Your task to perform on an android device: turn pop-ups off in chrome Image 0: 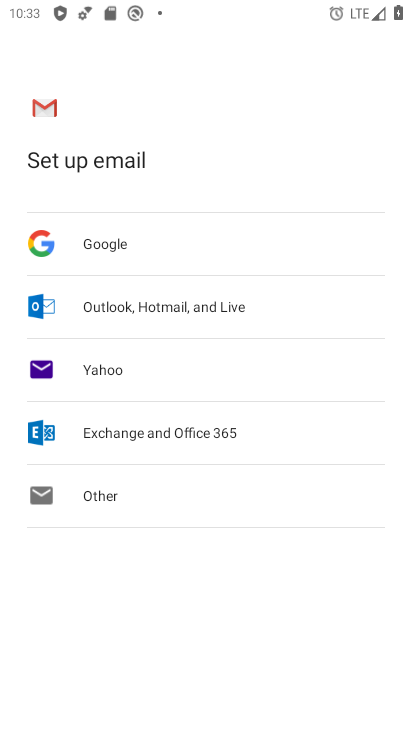
Step 0: press home button
Your task to perform on an android device: turn pop-ups off in chrome Image 1: 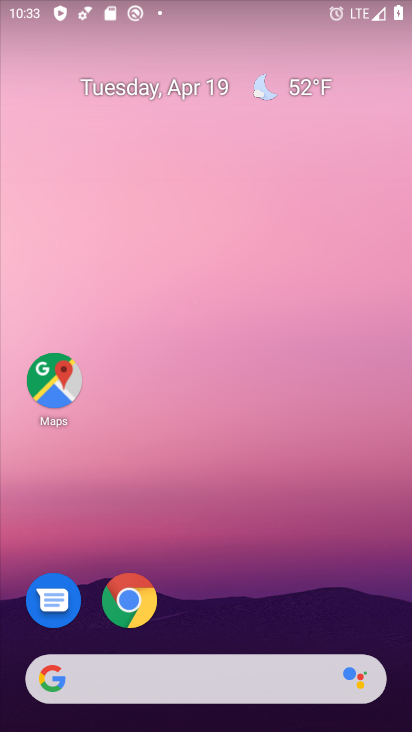
Step 1: drag from (269, 493) to (239, 217)
Your task to perform on an android device: turn pop-ups off in chrome Image 2: 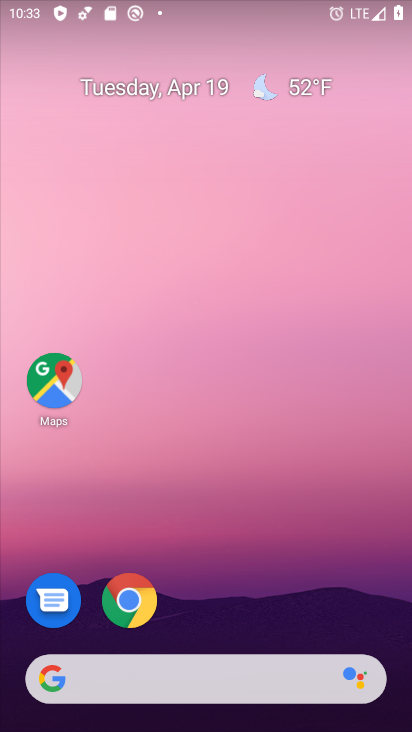
Step 2: drag from (324, 599) to (190, 226)
Your task to perform on an android device: turn pop-ups off in chrome Image 3: 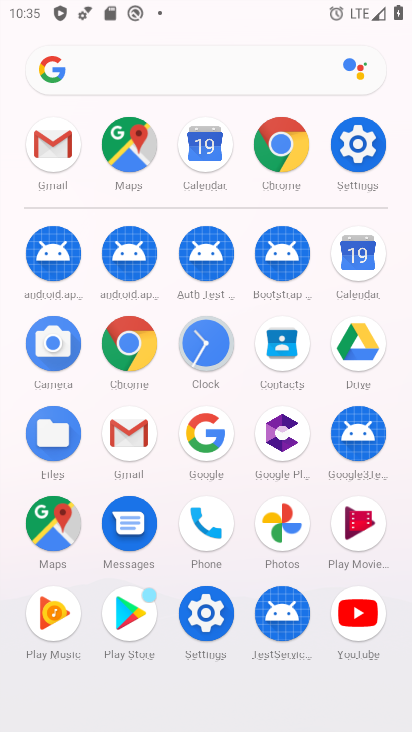
Step 3: click (271, 156)
Your task to perform on an android device: turn pop-ups off in chrome Image 4: 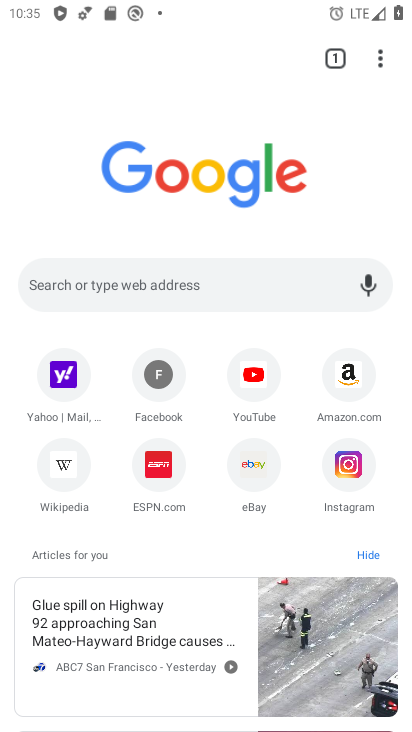
Step 4: click (376, 55)
Your task to perform on an android device: turn pop-ups off in chrome Image 5: 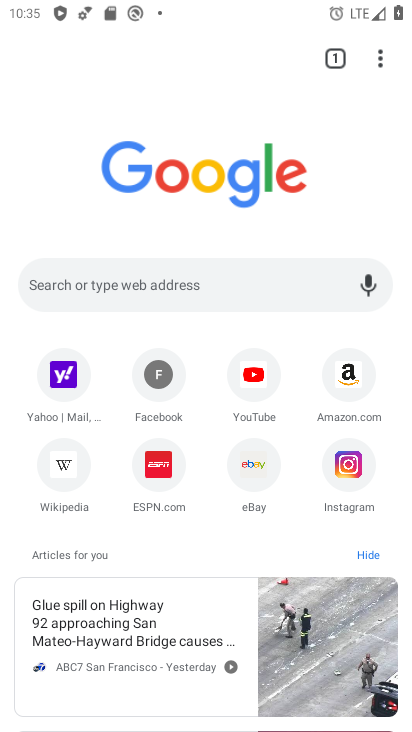
Step 5: click (378, 54)
Your task to perform on an android device: turn pop-ups off in chrome Image 6: 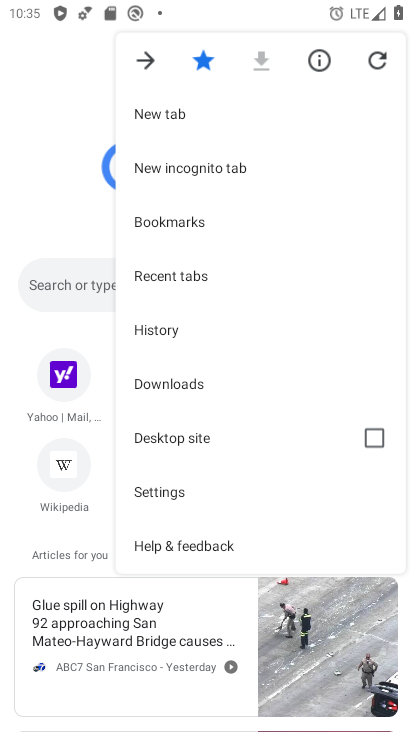
Step 6: click (211, 494)
Your task to perform on an android device: turn pop-ups off in chrome Image 7: 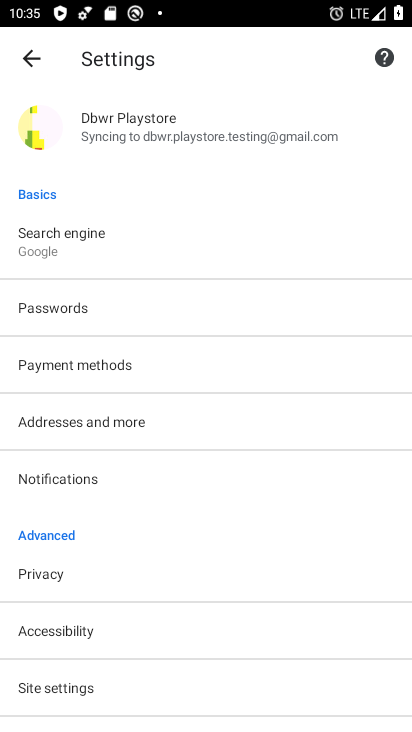
Step 7: click (135, 682)
Your task to perform on an android device: turn pop-ups off in chrome Image 8: 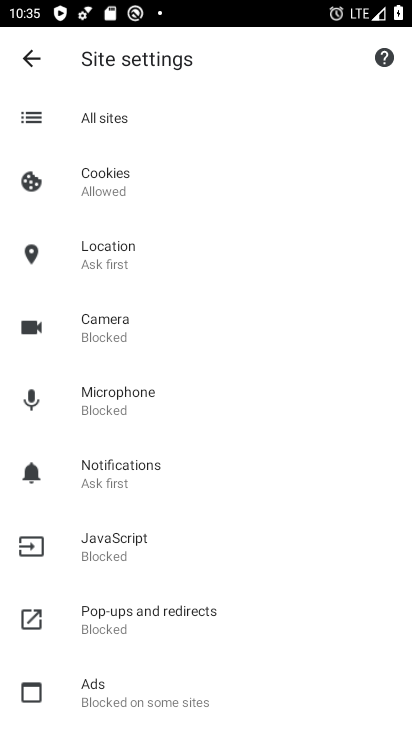
Step 8: click (221, 634)
Your task to perform on an android device: turn pop-ups off in chrome Image 9: 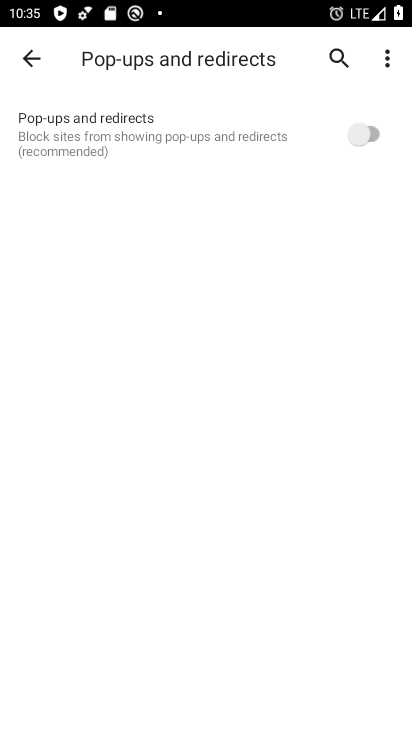
Step 9: task complete